Your task to perform on an android device: see sites visited before in the chrome app Image 0: 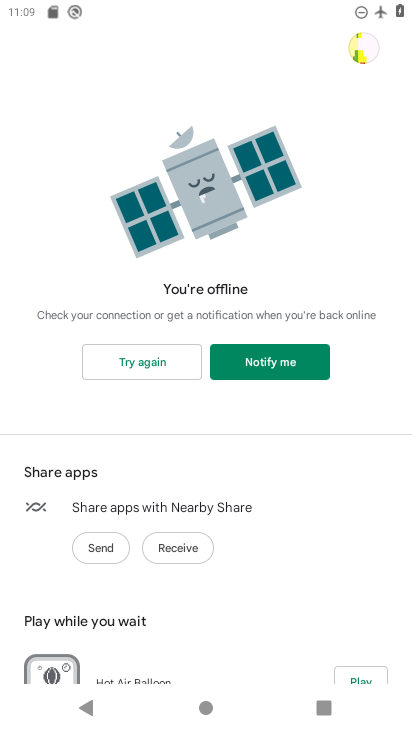
Step 0: press home button
Your task to perform on an android device: see sites visited before in the chrome app Image 1: 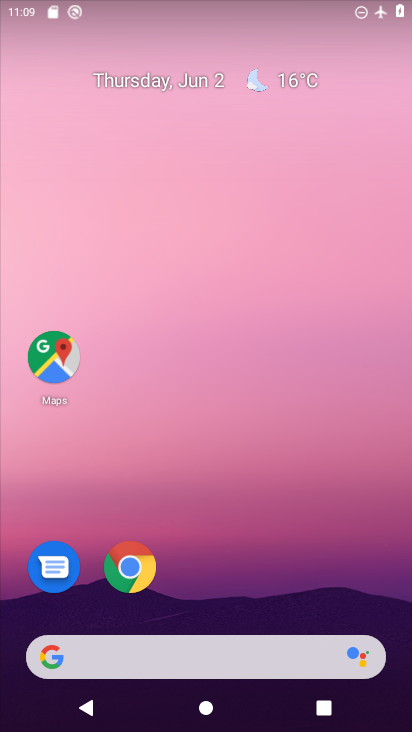
Step 1: click (127, 578)
Your task to perform on an android device: see sites visited before in the chrome app Image 2: 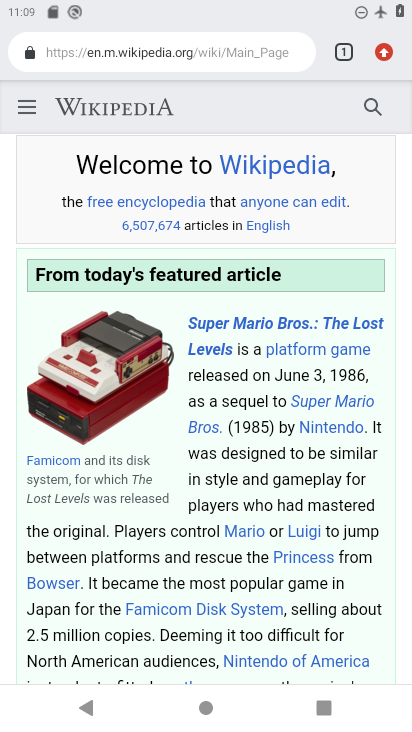
Step 2: click (374, 53)
Your task to perform on an android device: see sites visited before in the chrome app Image 3: 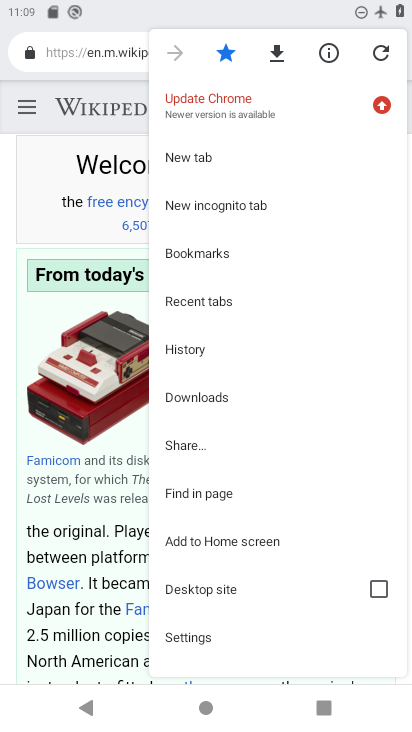
Step 3: click (206, 354)
Your task to perform on an android device: see sites visited before in the chrome app Image 4: 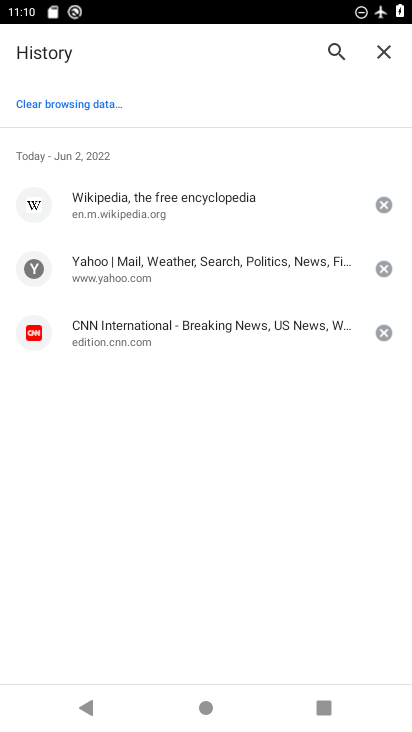
Step 4: task complete